Your task to perform on an android device: Open calendar and show me the fourth week of next month Image 0: 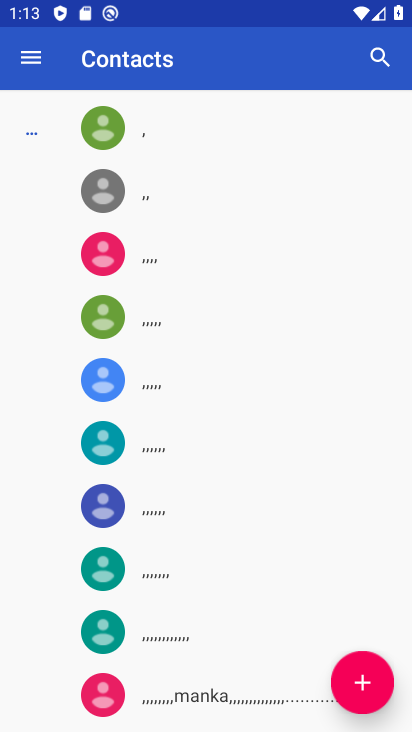
Step 0: press home button
Your task to perform on an android device: Open calendar and show me the fourth week of next month Image 1: 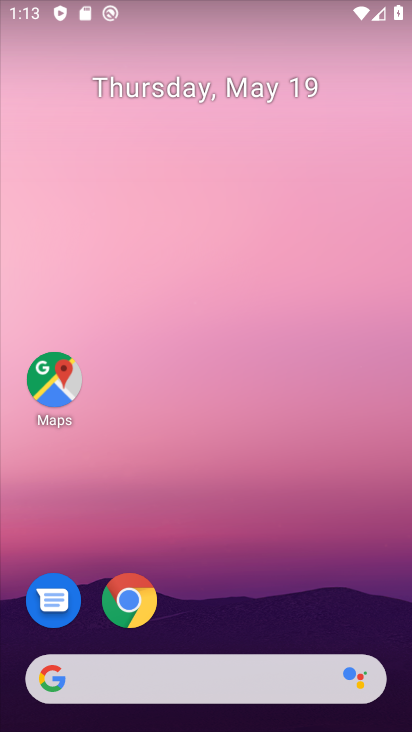
Step 1: drag from (258, 605) to (215, 76)
Your task to perform on an android device: Open calendar and show me the fourth week of next month Image 2: 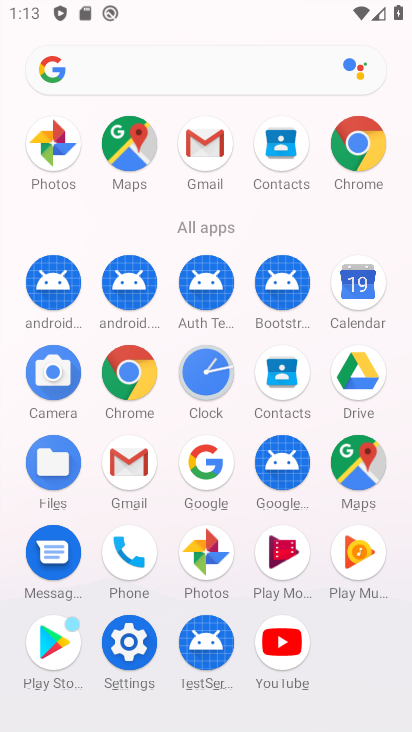
Step 2: click (353, 302)
Your task to perform on an android device: Open calendar and show me the fourth week of next month Image 3: 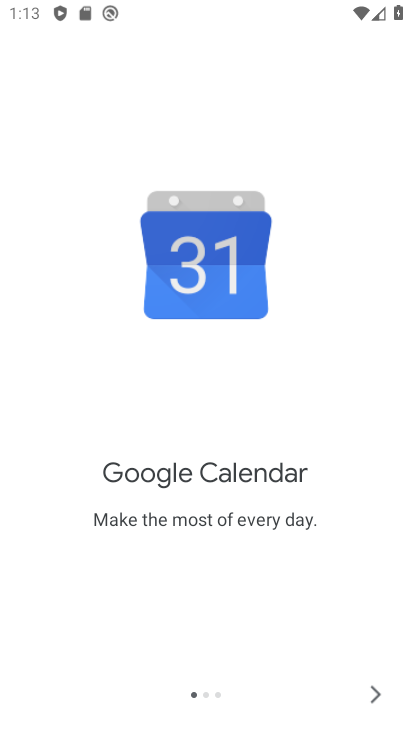
Step 3: click (372, 689)
Your task to perform on an android device: Open calendar and show me the fourth week of next month Image 4: 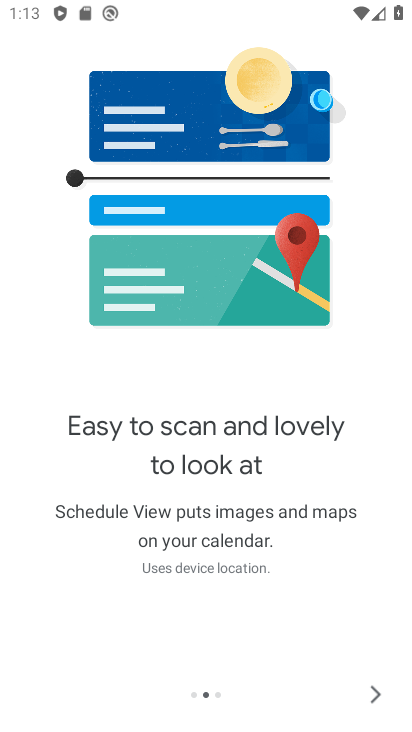
Step 4: click (372, 688)
Your task to perform on an android device: Open calendar and show me the fourth week of next month Image 5: 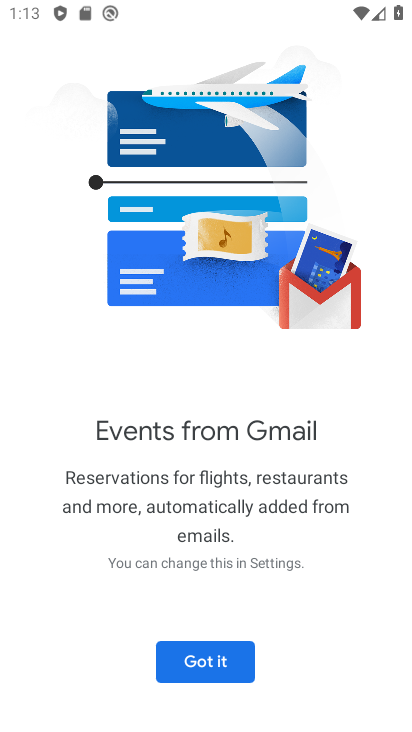
Step 5: click (230, 657)
Your task to perform on an android device: Open calendar and show me the fourth week of next month Image 6: 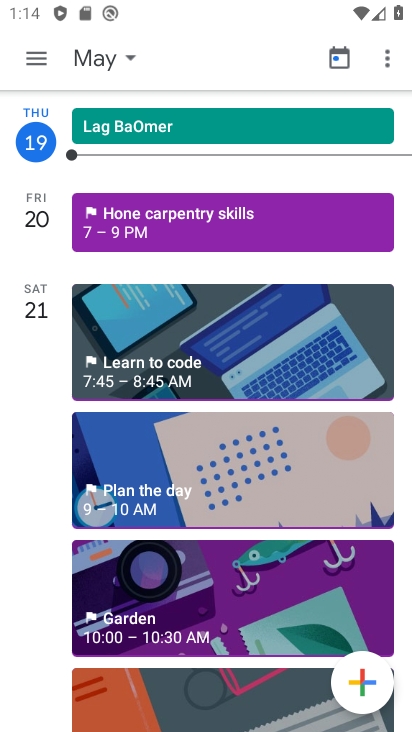
Step 6: click (36, 57)
Your task to perform on an android device: Open calendar and show me the fourth week of next month Image 7: 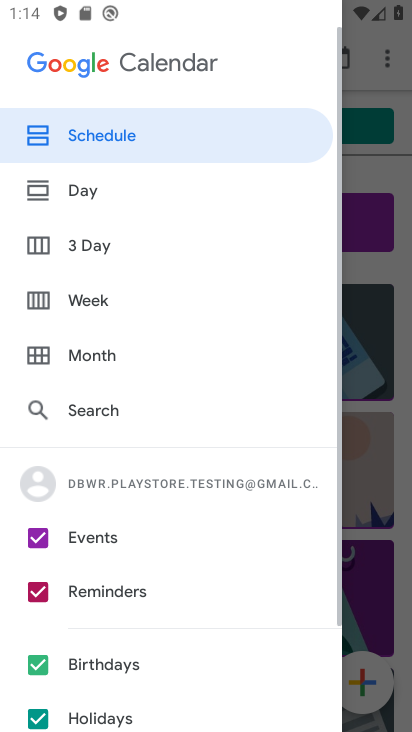
Step 7: click (94, 295)
Your task to perform on an android device: Open calendar and show me the fourth week of next month Image 8: 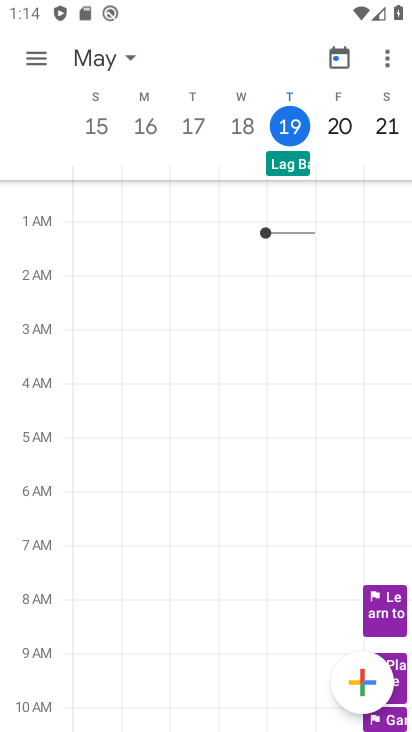
Step 8: click (104, 65)
Your task to perform on an android device: Open calendar and show me the fourth week of next month Image 9: 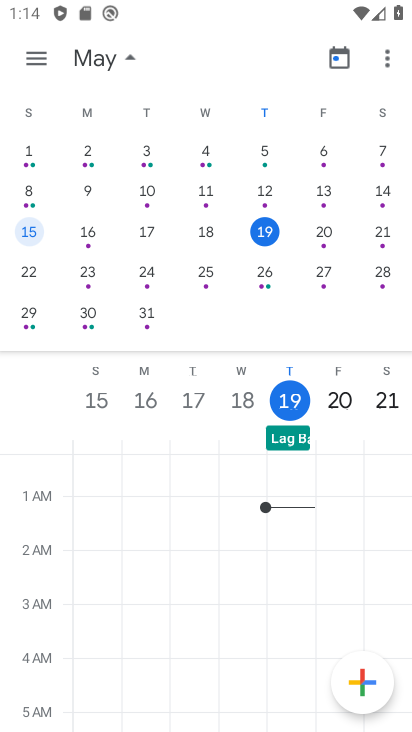
Step 9: drag from (343, 257) to (6, 244)
Your task to perform on an android device: Open calendar and show me the fourth week of next month Image 10: 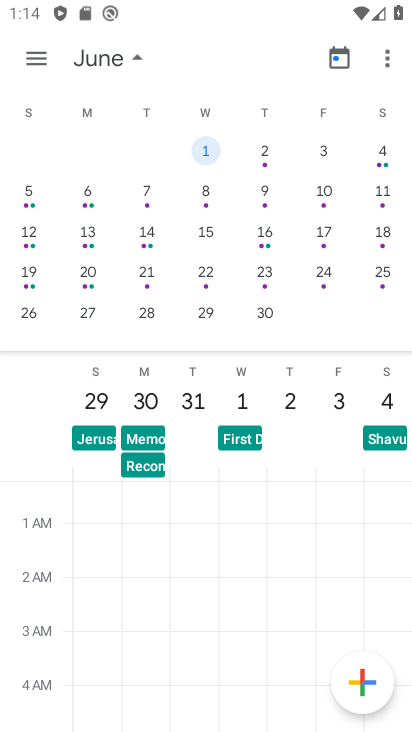
Step 10: click (82, 314)
Your task to perform on an android device: Open calendar and show me the fourth week of next month Image 11: 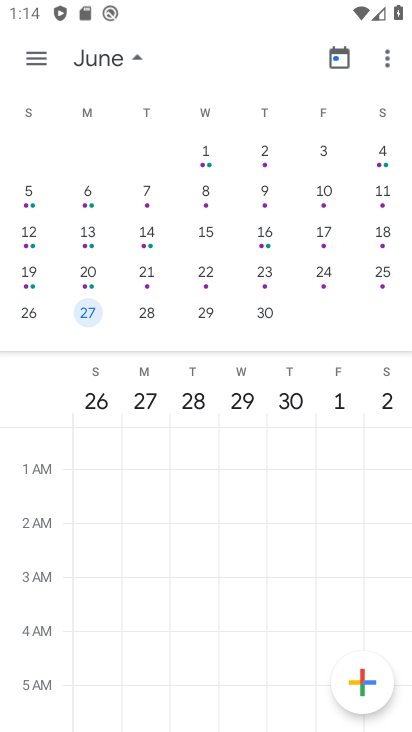
Step 11: task complete